Your task to perform on an android device: clear all cookies in the chrome app Image 0: 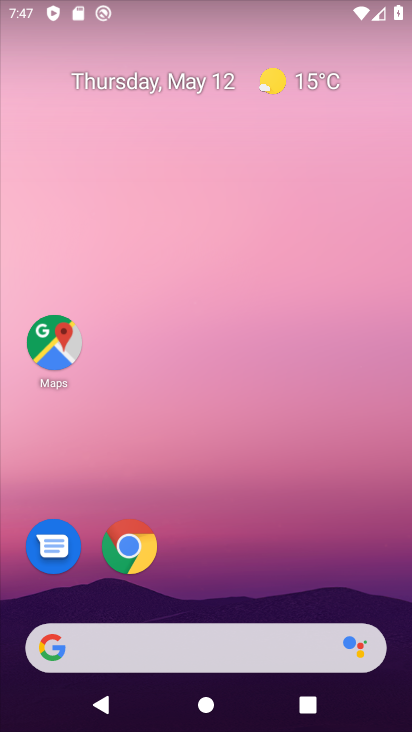
Step 0: click (133, 549)
Your task to perform on an android device: clear all cookies in the chrome app Image 1: 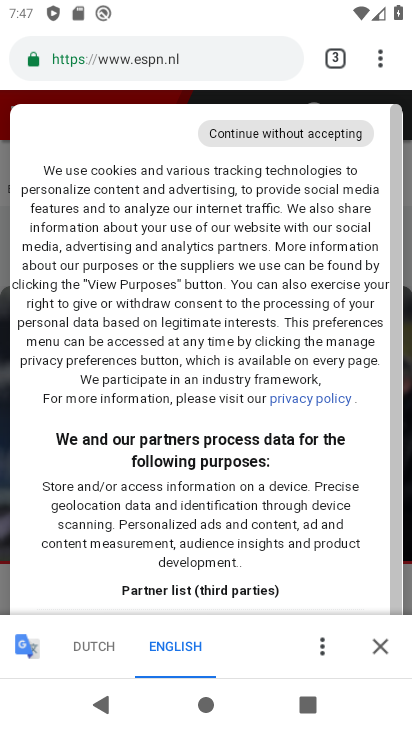
Step 1: drag from (379, 64) to (268, 579)
Your task to perform on an android device: clear all cookies in the chrome app Image 2: 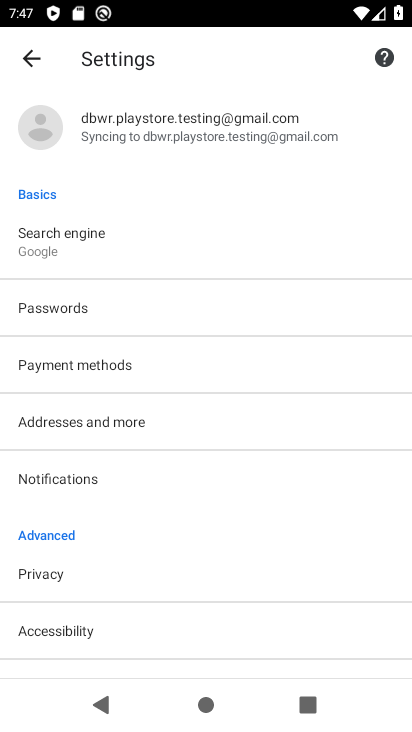
Step 2: click (59, 580)
Your task to perform on an android device: clear all cookies in the chrome app Image 3: 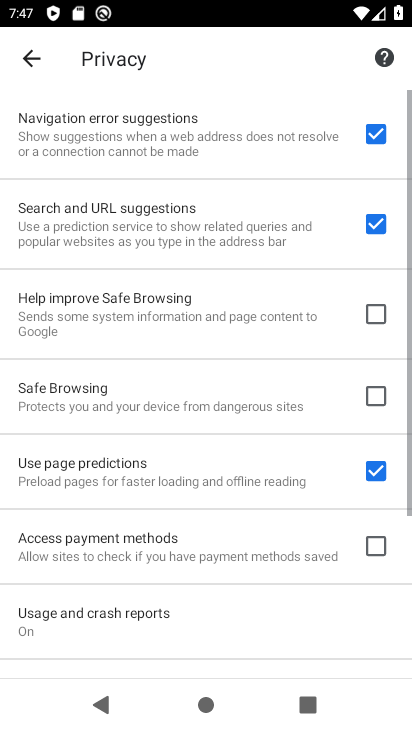
Step 3: drag from (174, 600) to (302, 223)
Your task to perform on an android device: clear all cookies in the chrome app Image 4: 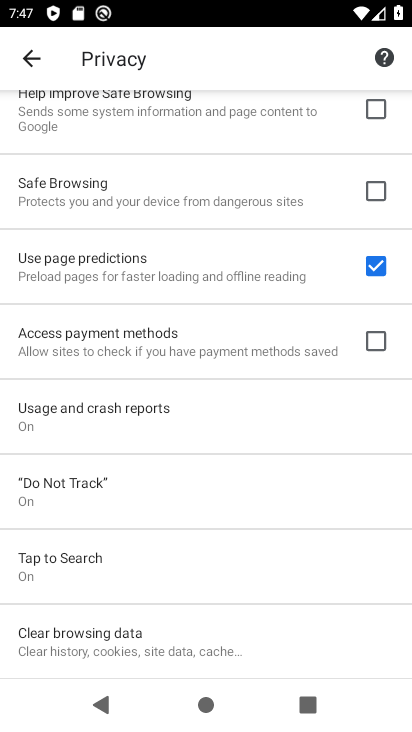
Step 4: click (119, 642)
Your task to perform on an android device: clear all cookies in the chrome app Image 5: 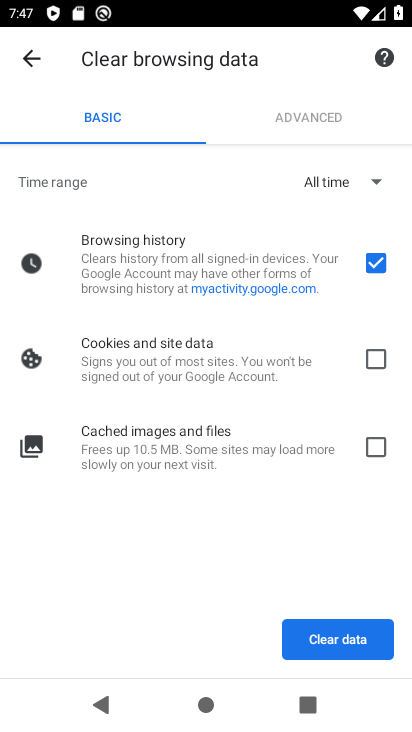
Step 5: click (377, 354)
Your task to perform on an android device: clear all cookies in the chrome app Image 6: 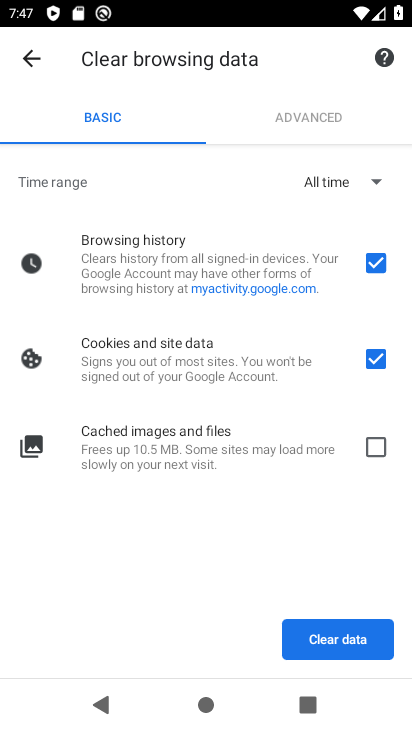
Step 6: click (374, 270)
Your task to perform on an android device: clear all cookies in the chrome app Image 7: 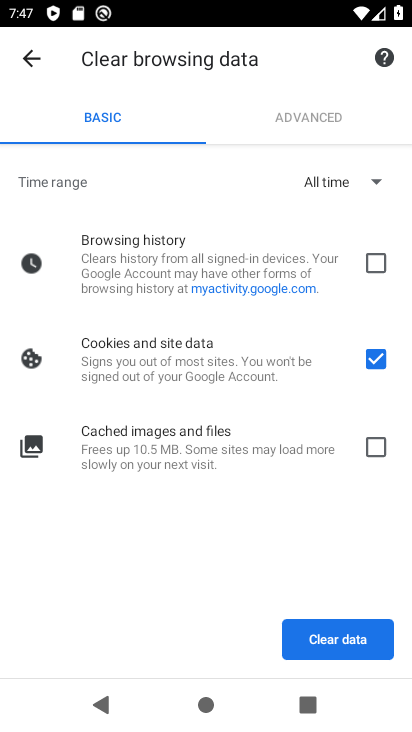
Step 7: click (317, 639)
Your task to perform on an android device: clear all cookies in the chrome app Image 8: 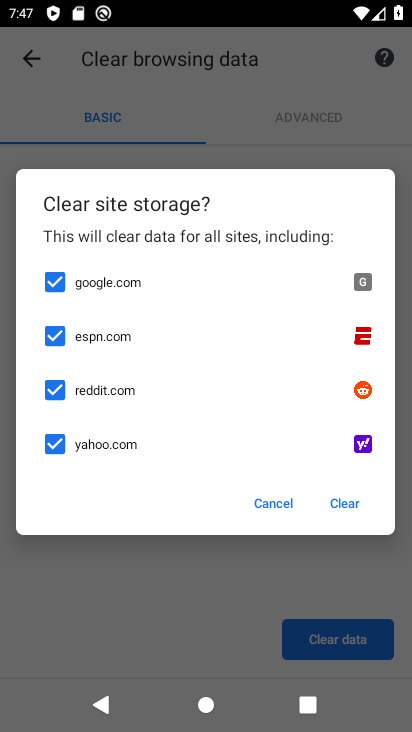
Step 8: click (342, 507)
Your task to perform on an android device: clear all cookies in the chrome app Image 9: 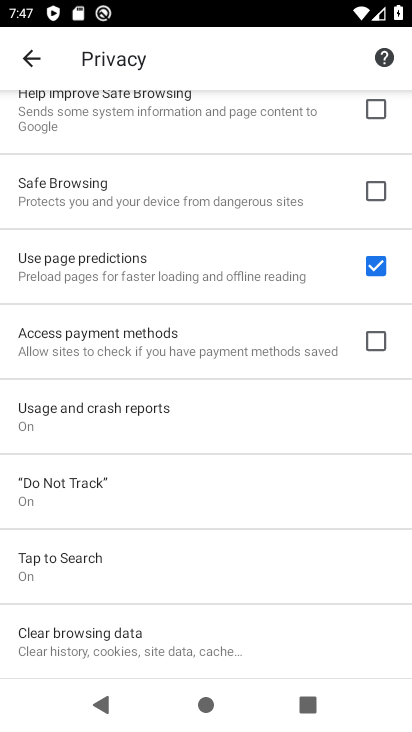
Step 9: task complete